Your task to perform on an android device: open sync settings in chrome Image 0: 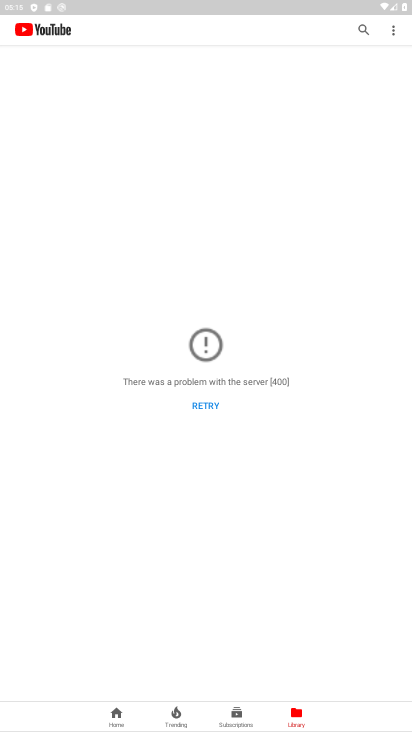
Step 0: press home button
Your task to perform on an android device: open sync settings in chrome Image 1: 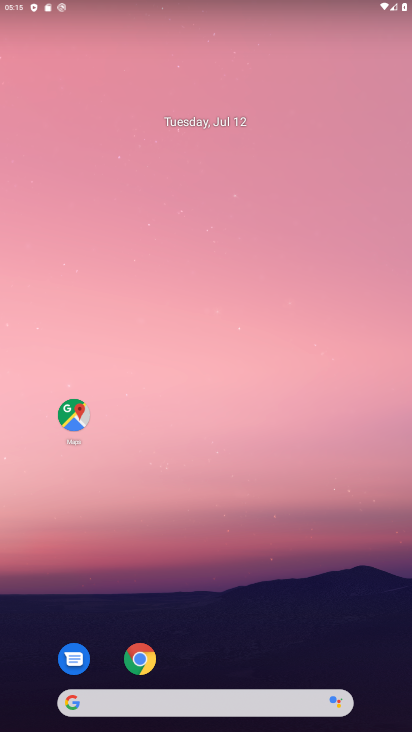
Step 1: click (142, 657)
Your task to perform on an android device: open sync settings in chrome Image 2: 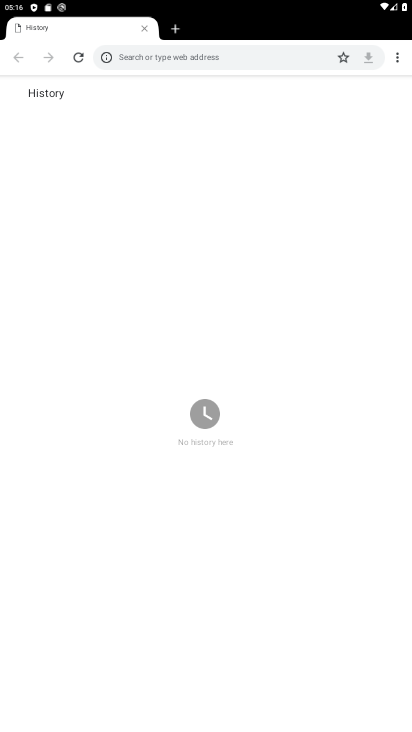
Step 2: click (396, 58)
Your task to perform on an android device: open sync settings in chrome Image 3: 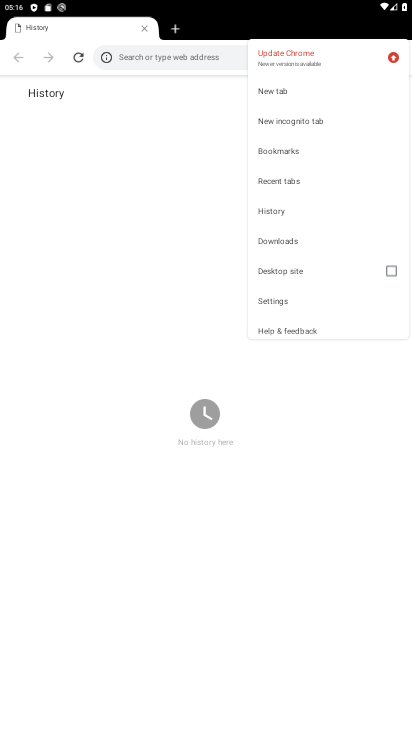
Step 3: click (270, 302)
Your task to perform on an android device: open sync settings in chrome Image 4: 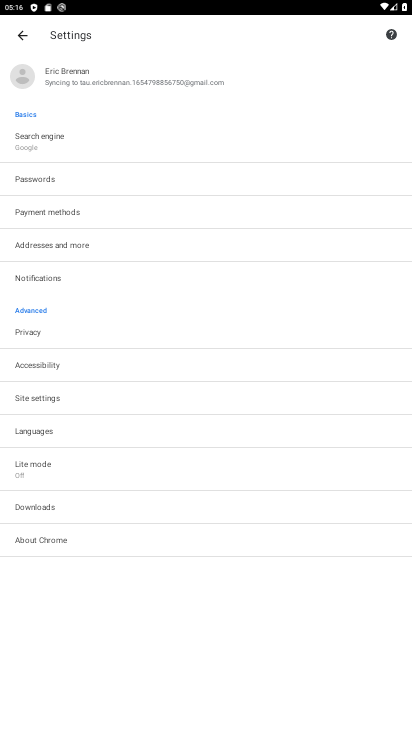
Step 4: click (67, 69)
Your task to perform on an android device: open sync settings in chrome Image 5: 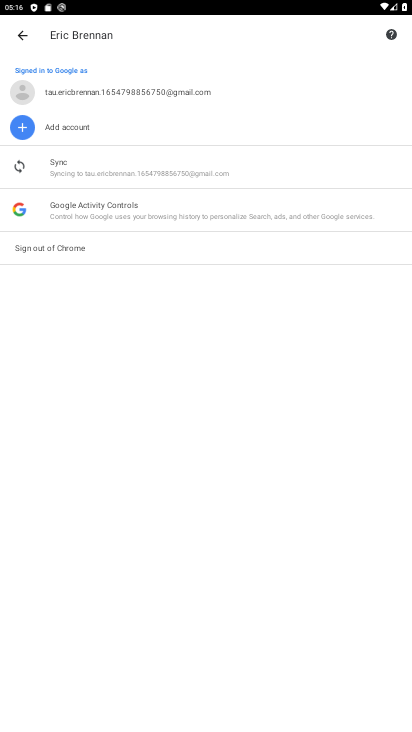
Step 5: click (55, 171)
Your task to perform on an android device: open sync settings in chrome Image 6: 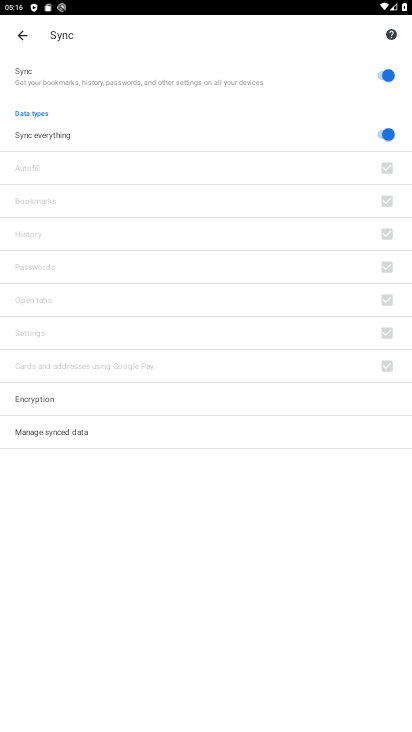
Step 6: task complete